Your task to perform on an android device: Go to notification settings Image 0: 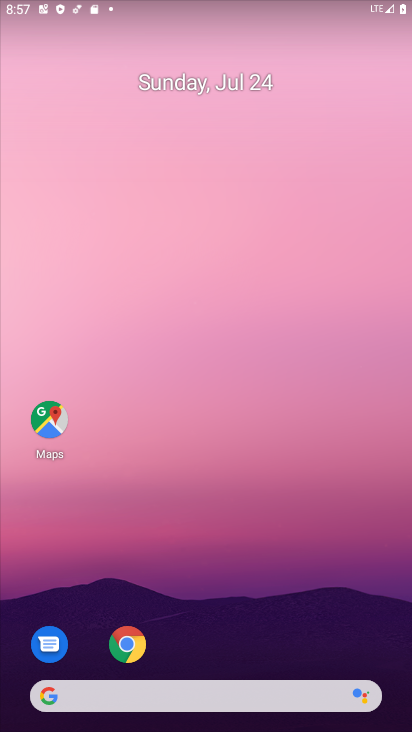
Step 0: click (409, 441)
Your task to perform on an android device: Go to notification settings Image 1: 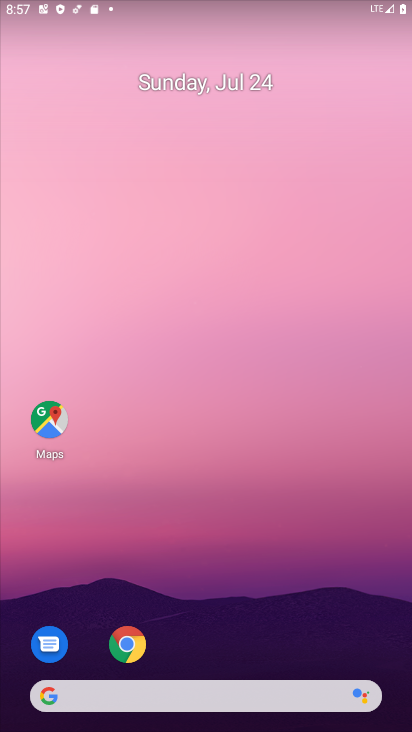
Step 1: press home button
Your task to perform on an android device: Go to notification settings Image 2: 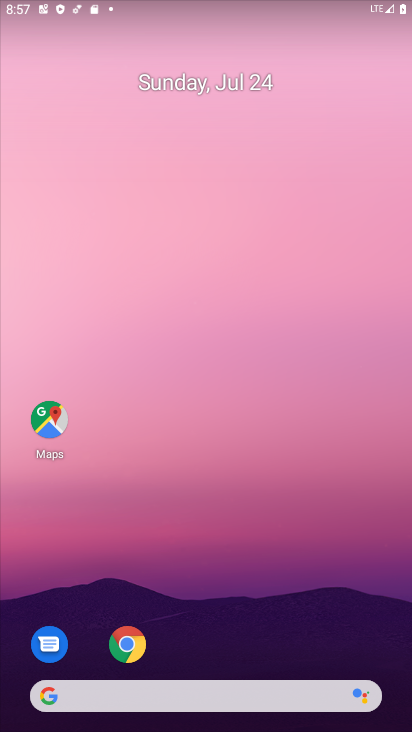
Step 2: drag from (40, 636) to (316, 85)
Your task to perform on an android device: Go to notification settings Image 3: 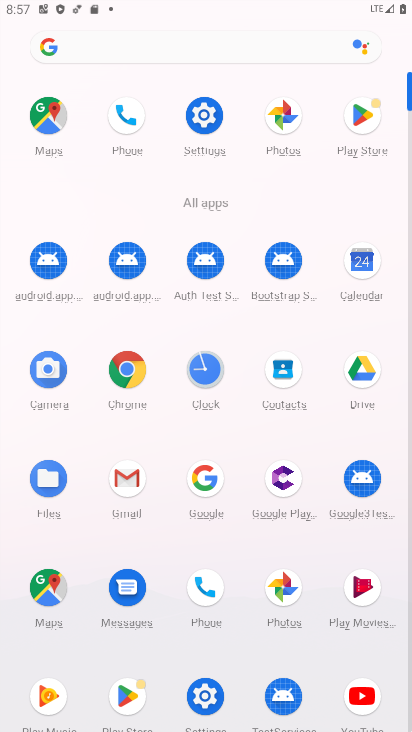
Step 3: click (194, 114)
Your task to perform on an android device: Go to notification settings Image 4: 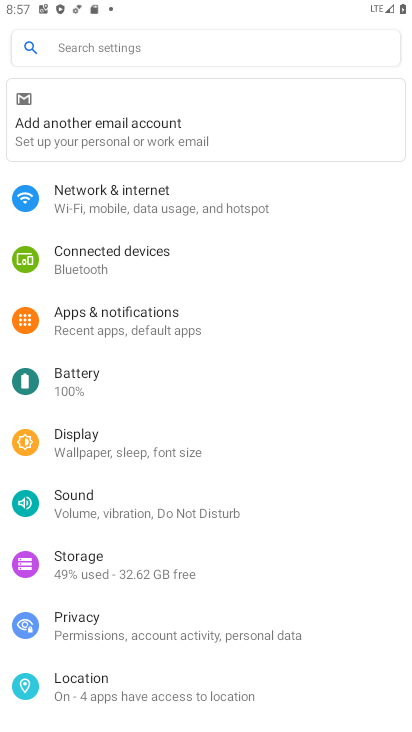
Step 4: click (122, 309)
Your task to perform on an android device: Go to notification settings Image 5: 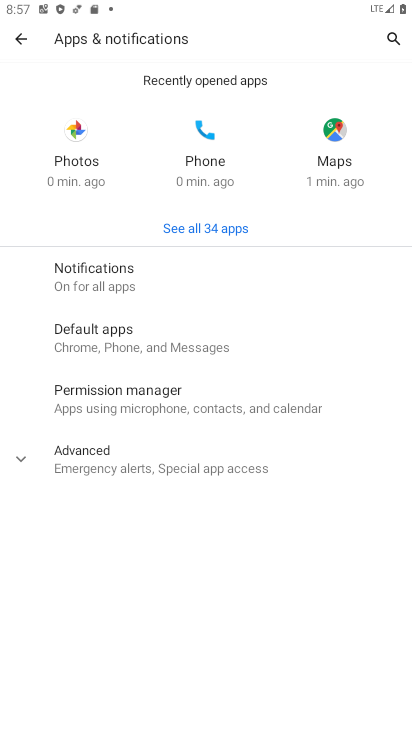
Step 5: click (110, 273)
Your task to perform on an android device: Go to notification settings Image 6: 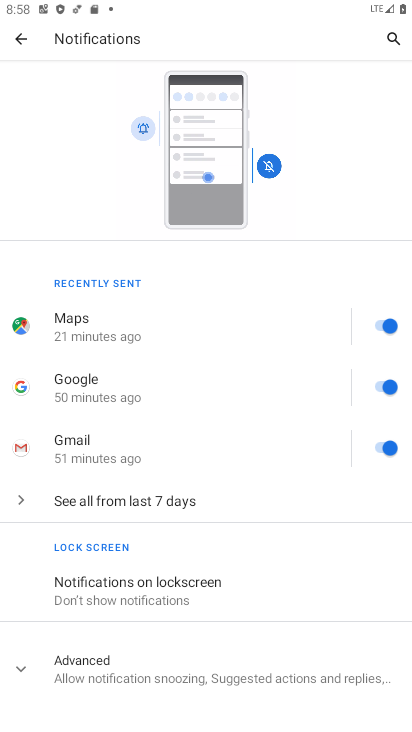
Step 6: task complete